Your task to perform on an android device: Open Yahoo.com Image 0: 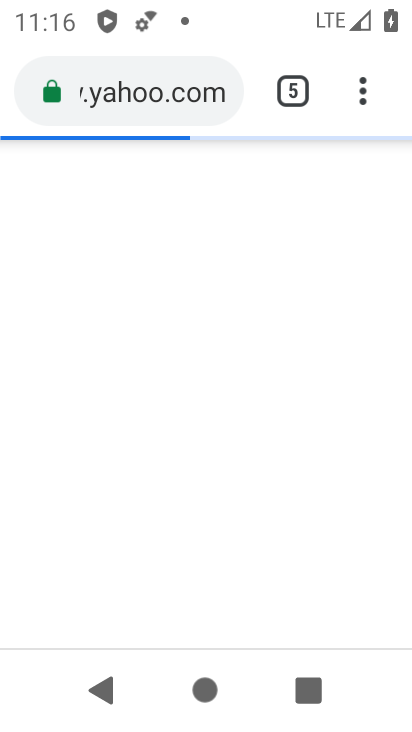
Step 0: press home button
Your task to perform on an android device: Open Yahoo.com Image 1: 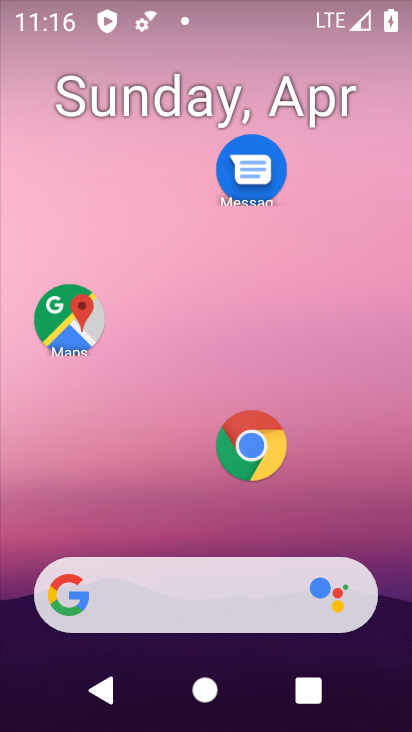
Step 1: drag from (206, 574) to (318, 90)
Your task to perform on an android device: Open Yahoo.com Image 2: 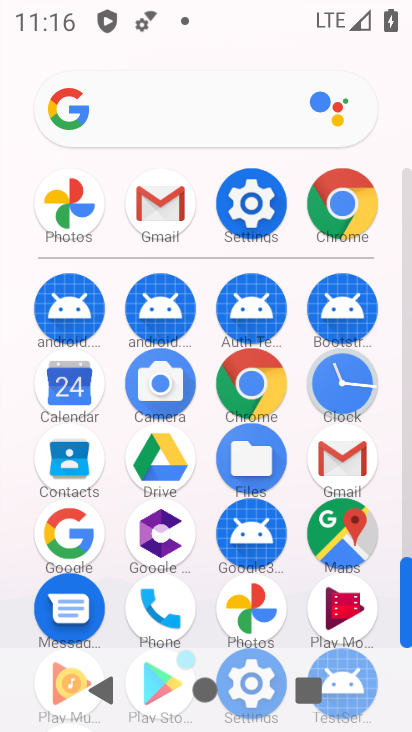
Step 2: click (345, 216)
Your task to perform on an android device: Open Yahoo.com Image 3: 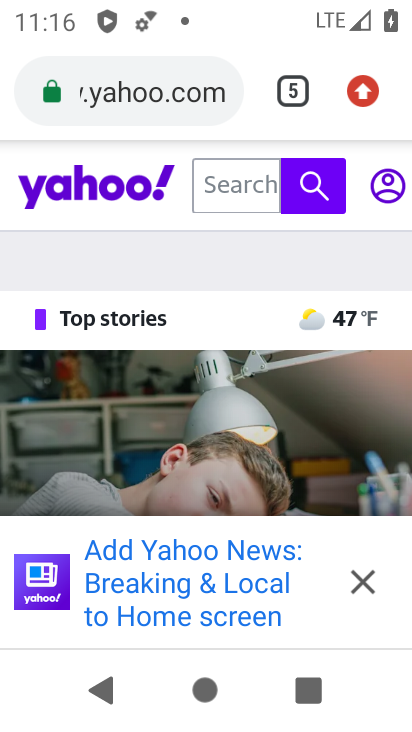
Step 3: click (363, 115)
Your task to perform on an android device: Open Yahoo.com Image 4: 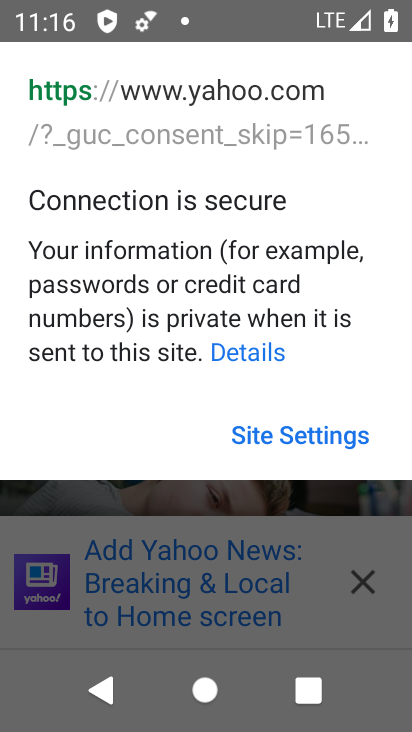
Step 4: press back button
Your task to perform on an android device: Open Yahoo.com Image 5: 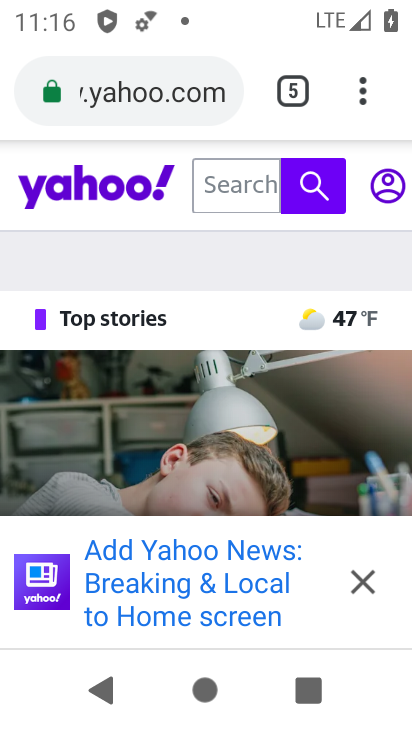
Step 5: drag from (364, 93) to (106, 285)
Your task to perform on an android device: Open Yahoo.com Image 6: 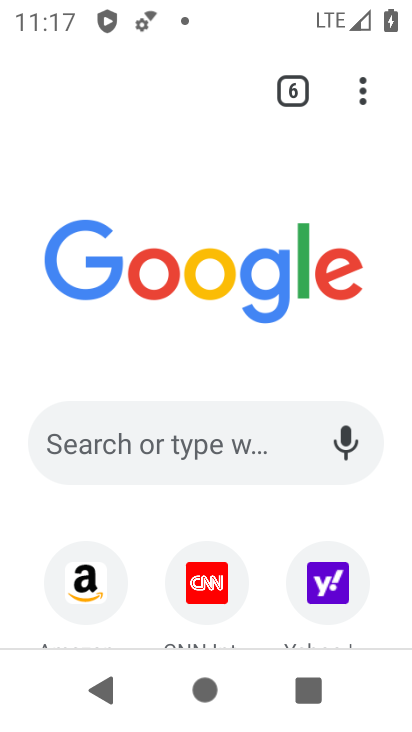
Step 6: drag from (173, 566) to (301, 248)
Your task to perform on an android device: Open Yahoo.com Image 7: 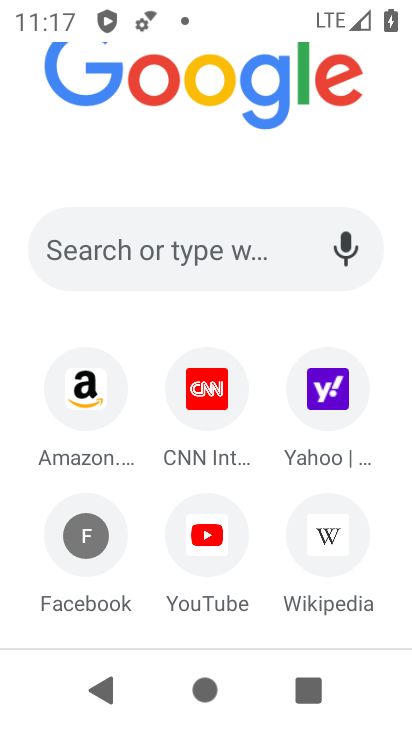
Step 7: click (340, 402)
Your task to perform on an android device: Open Yahoo.com Image 8: 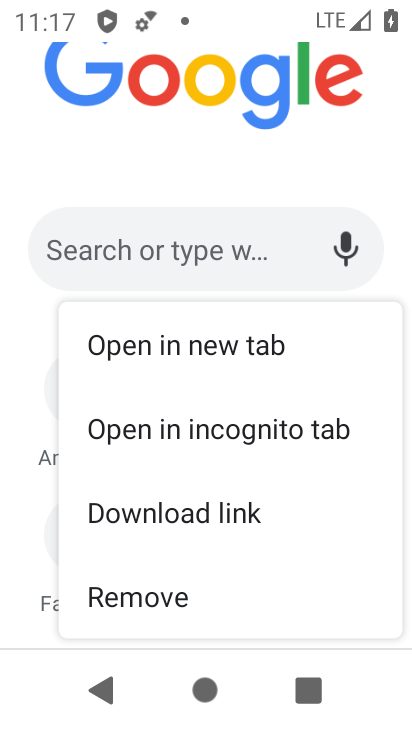
Step 8: drag from (52, 556) to (176, 226)
Your task to perform on an android device: Open Yahoo.com Image 9: 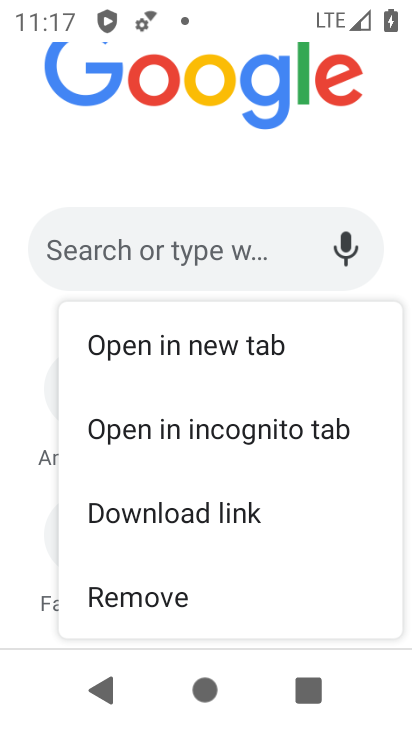
Step 9: click (275, 155)
Your task to perform on an android device: Open Yahoo.com Image 10: 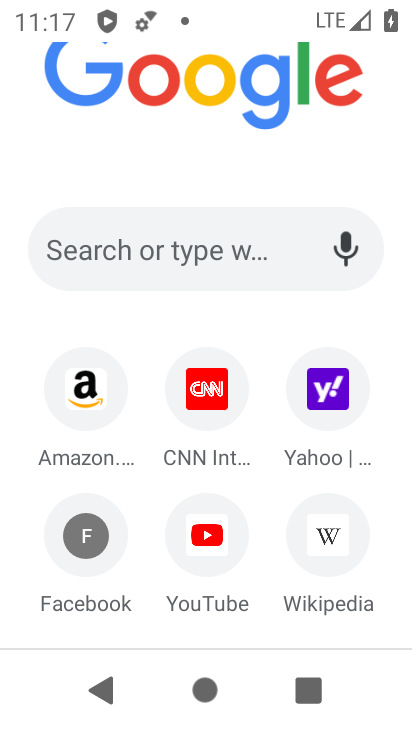
Step 10: click (338, 394)
Your task to perform on an android device: Open Yahoo.com Image 11: 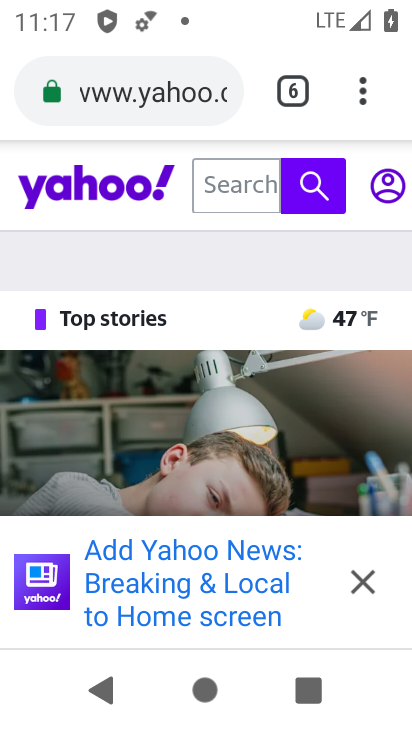
Step 11: task complete